Your task to perform on an android device: add a contact in the contacts app Image 0: 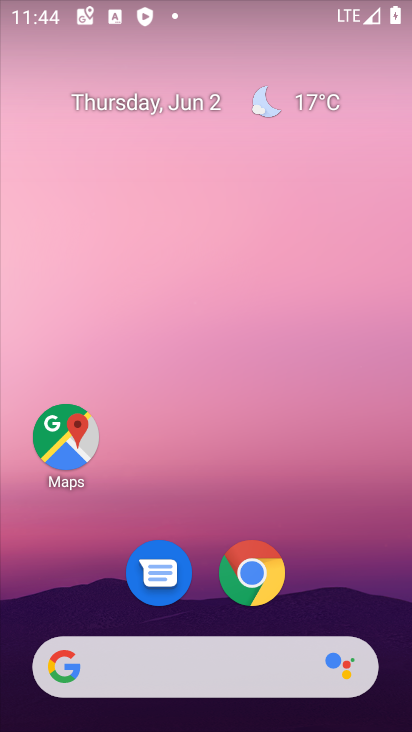
Step 0: drag from (351, 529) to (309, 72)
Your task to perform on an android device: add a contact in the contacts app Image 1: 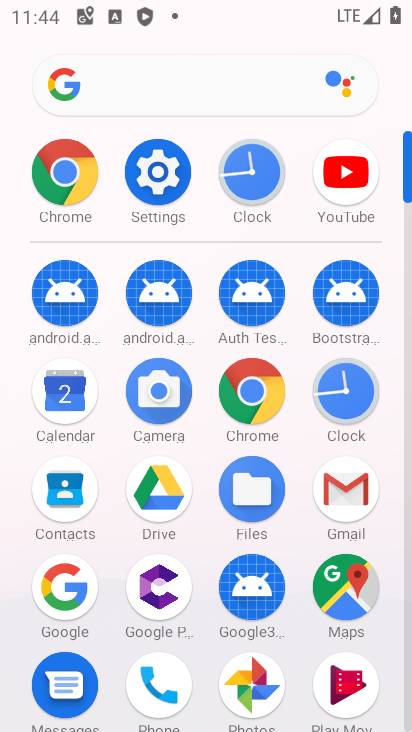
Step 1: click (135, 686)
Your task to perform on an android device: add a contact in the contacts app Image 2: 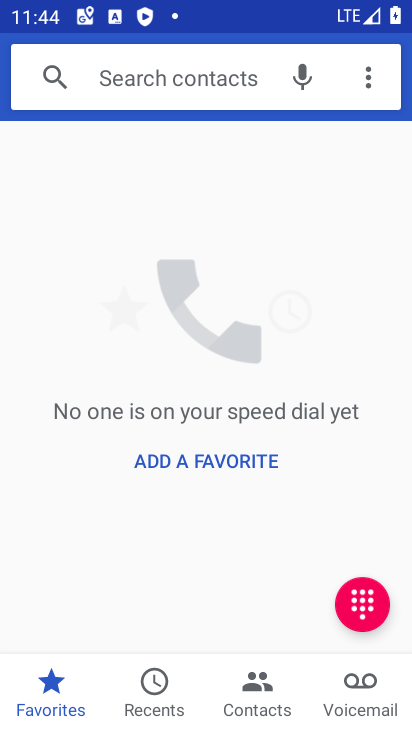
Step 2: click (266, 689)
Your task to perform on an android device: add a contact in the contacts app Image 3: 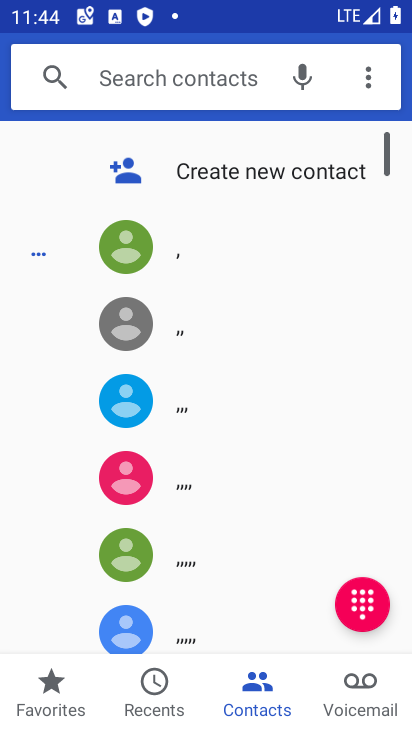
Step 3: click (235, 168)
Your task to perform on an android device: add a contact in the contacts app Image 4: 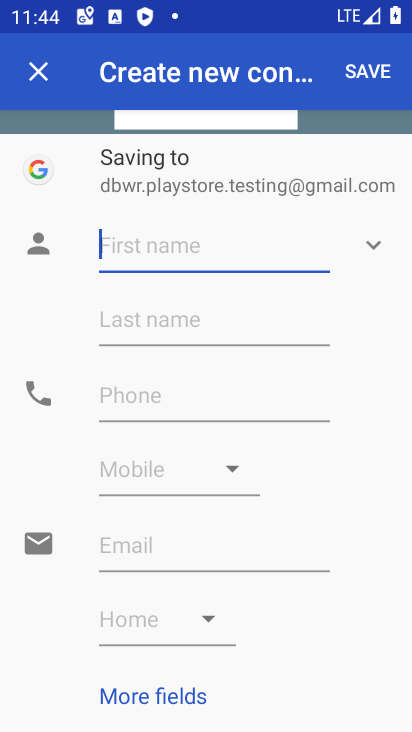
Step 4: type "tryyr"
Your task to perform on an android device: add a contact in the contacts app Image 5: 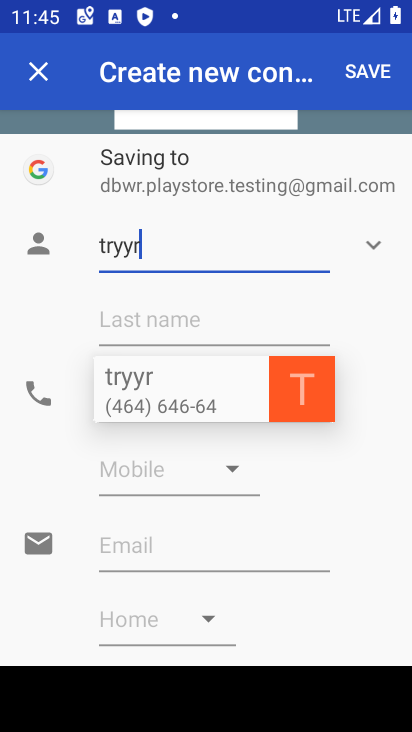
Step 5: click (264, 401)
Your task to perform on an android device: add a contact in the contacts app Image 6: 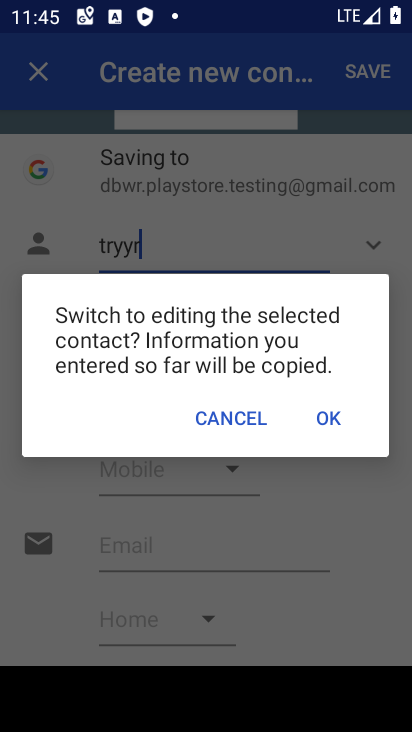
Step 6: click (311, 408)
Your task to perform on an android device: add a contact in the contacts app Image 7: 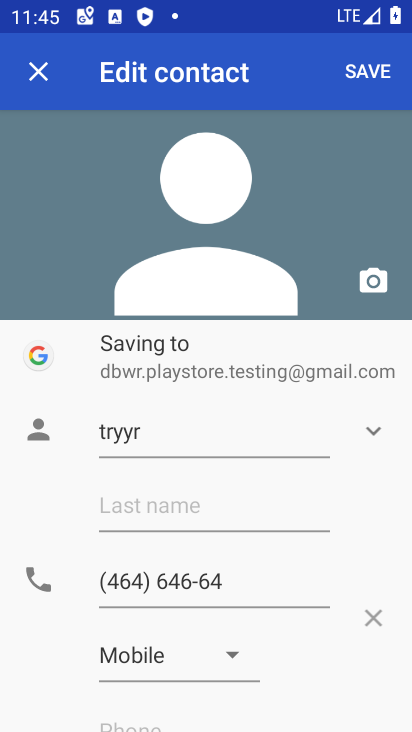
Step 7: click (380, 83)
Your task to perform on an android device: add a contact in the contacts app Image 8: 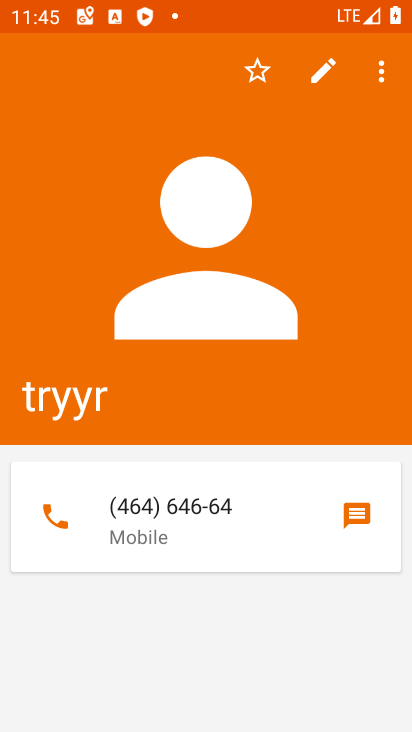
Step 8: task complete